Your task to perform on an android device: turn off data saver in the chrome app Image 0: 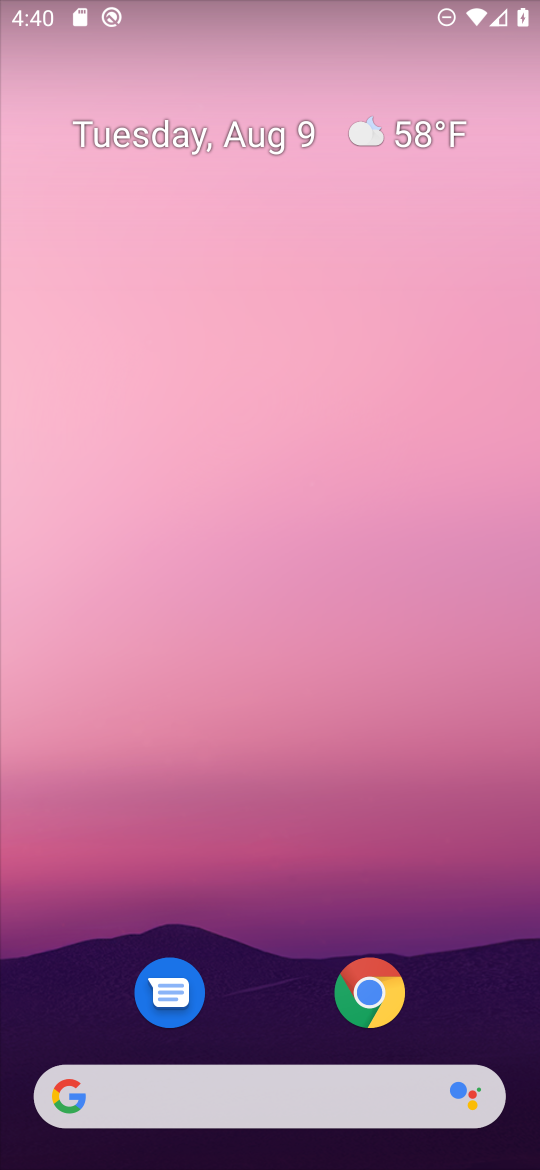
Step 0: click (304, 99)
Your task to perform on an android device: turn off data saver in the chrome app Image 1: 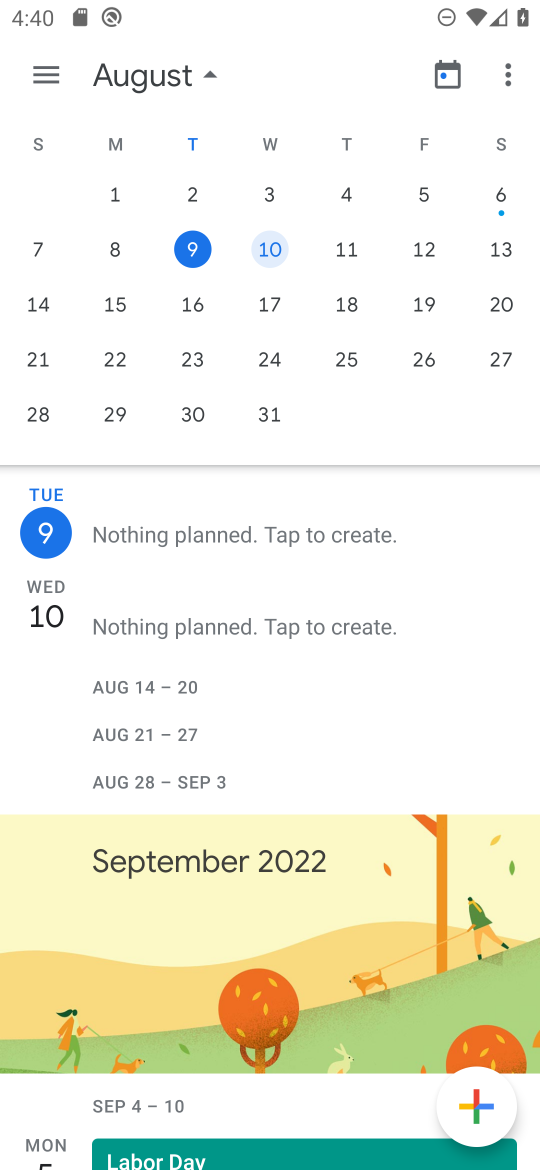
Step 1: press home button
Your task to perform on an android device: turn off data saver in the chrome app Image 2: 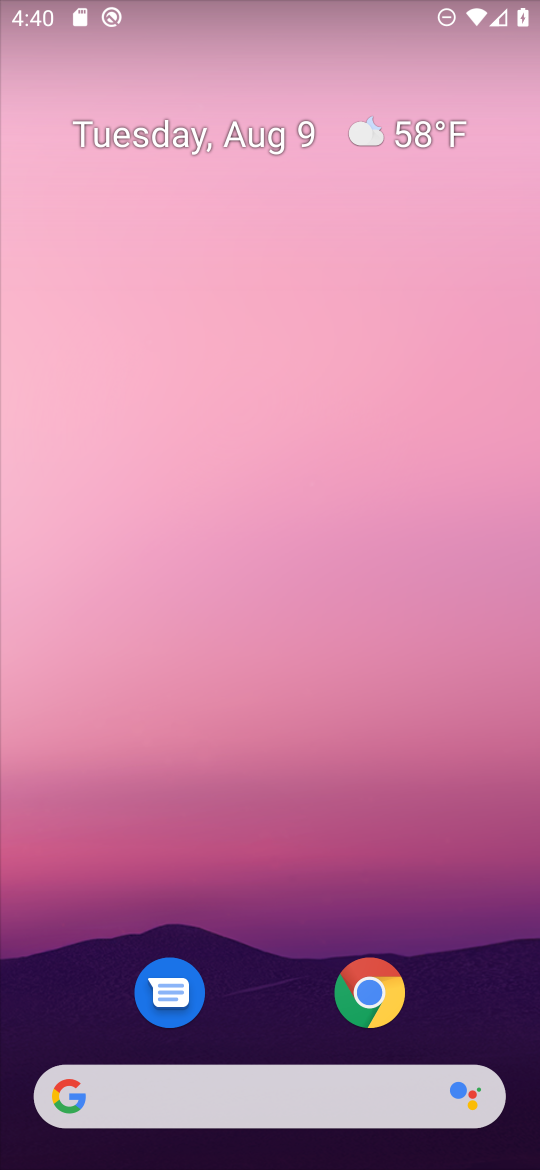
Step 2: drag from (292, 1083) to (218, 111)
Your task to perform on an android device: turn off data saver in the chrome app Image 3: 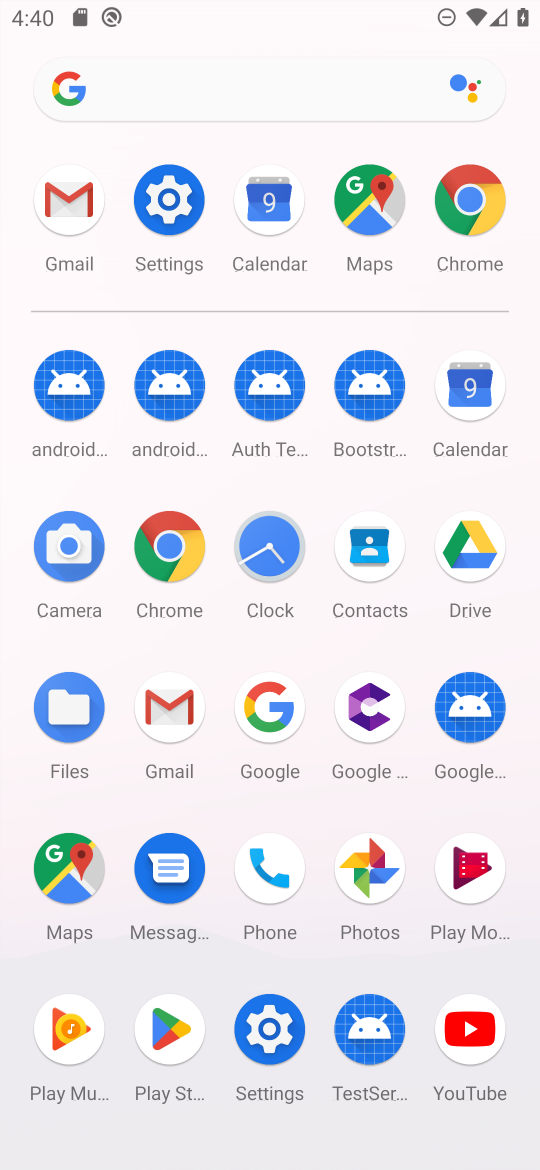
Step 3: click (163, 554)
Your task to perform on an android device: turn off data saver in the chrome app Image 4: 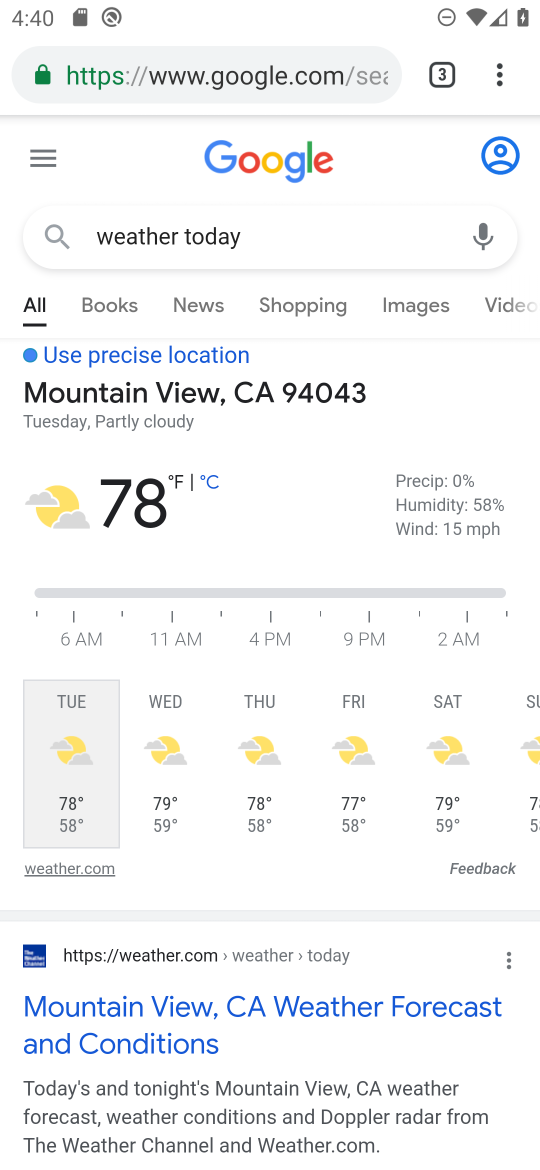
Step 4: click (487, 66)
Your task to perform on an android device: turn off data saver in the chrome app Image 5: 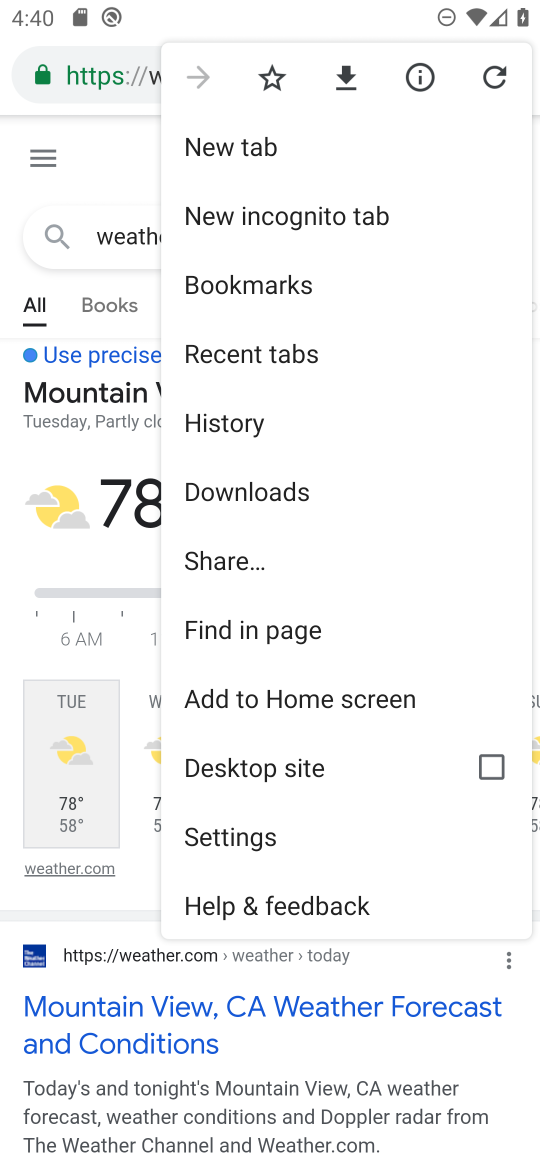
Step 5: click (234, 845)
Your task to perform on an android device: turn off data saver in the chrome app Image 6: 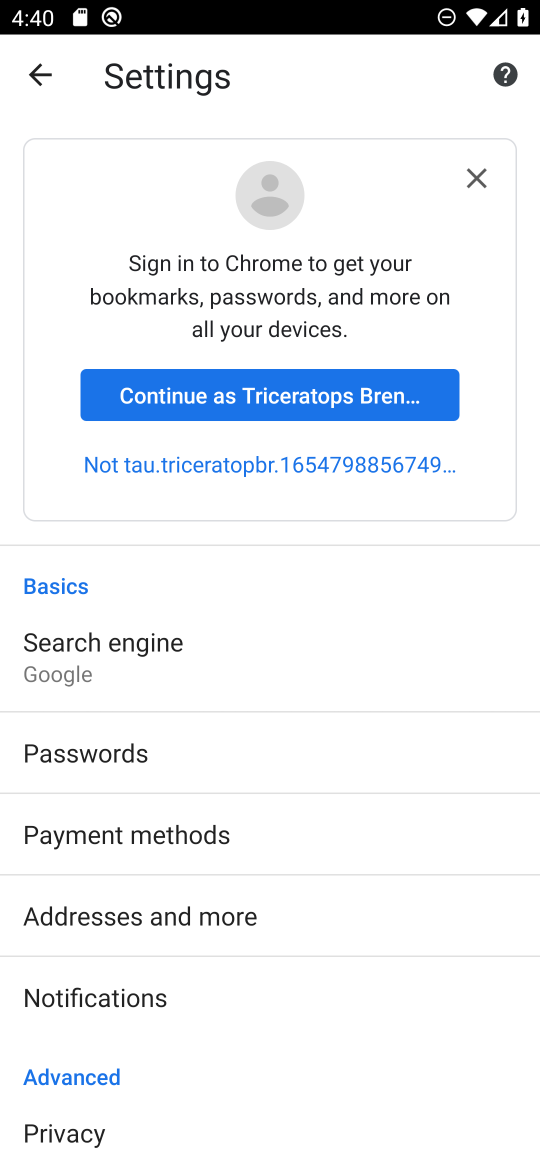
Step 6: drag from (282, 1106) to (211, 184)
Your task to perform on an android device: turn off data saver in the chrome app Image 7: 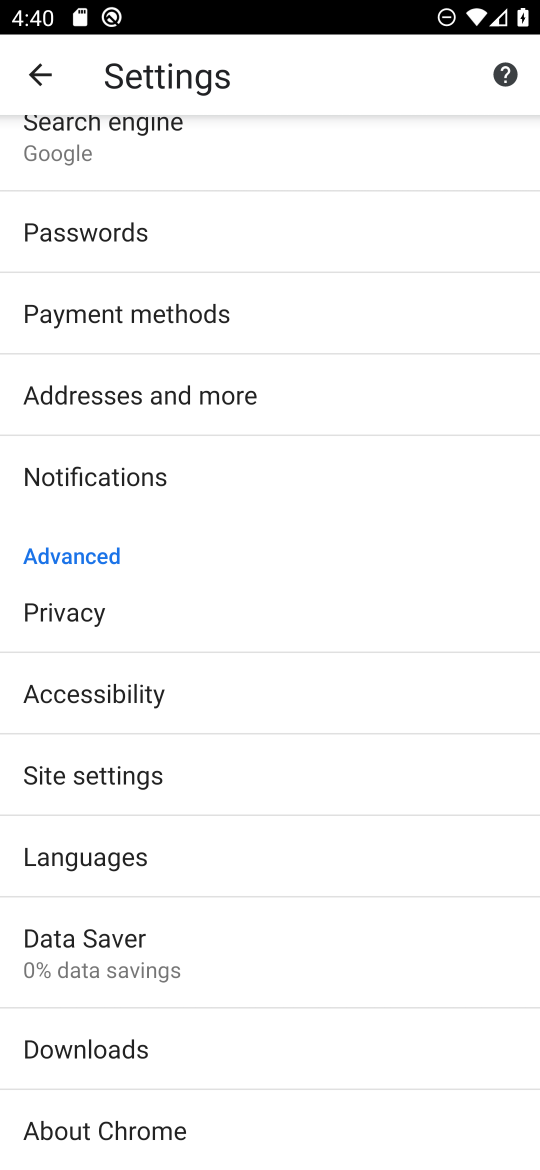
Step 7: click (151, 935)
Your task to perform on an android device: turn off data saver in the chrome app Image 8: 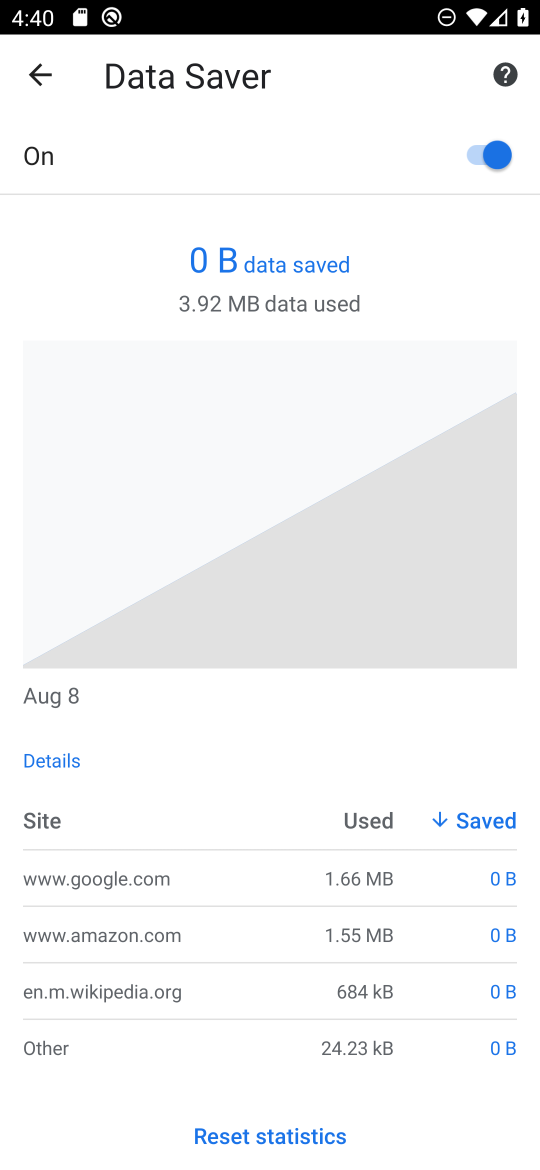
Step 8: click (482, 146)
Your task to perform on an android device: turn off data saver in the chrome app Image 9: 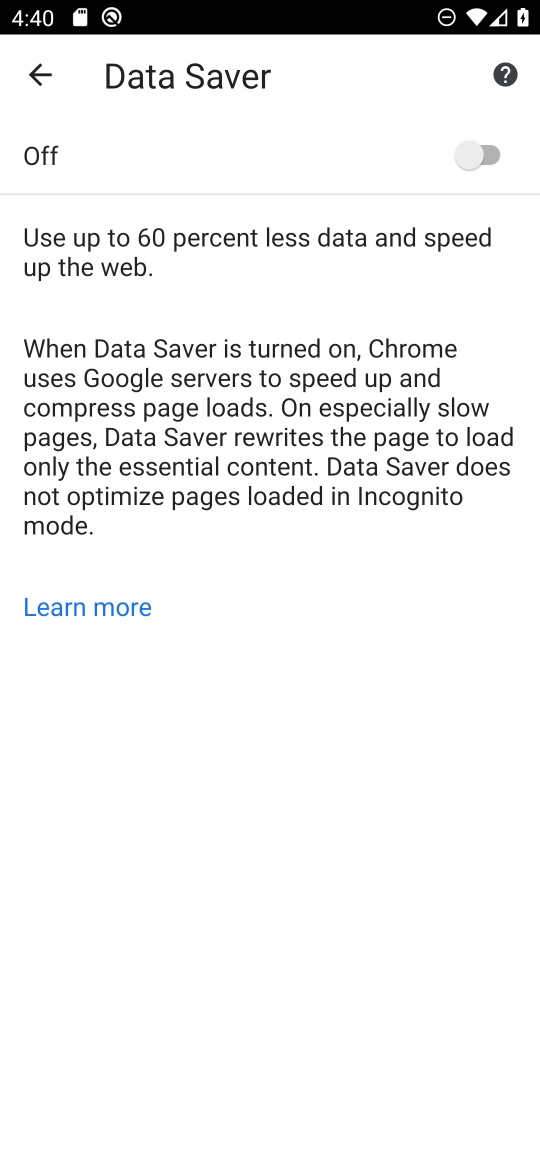
Step 9: task complete